Your task to perform on an android device: Go to network settings Image 0: 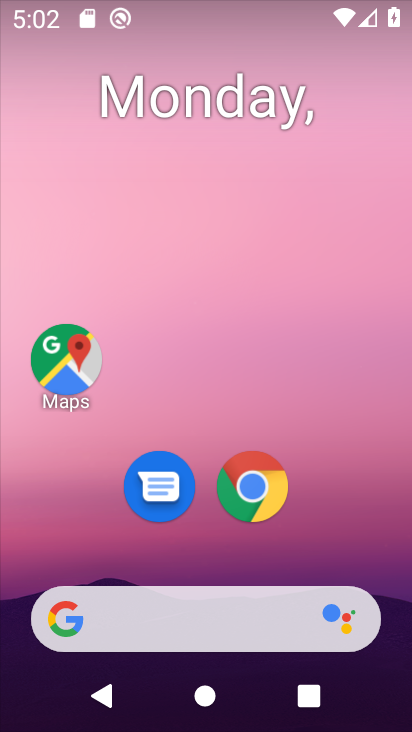
Step 0: drag from (346, 533) to (331, 46)
Your task to perform on an android device: Go to network settings Image 1: 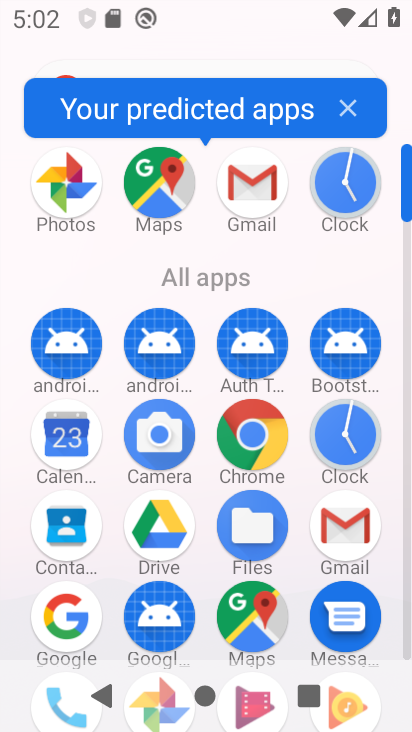
Step 1: click (410, 651)
Your task to perform on an android device: Go to network settings Image 2: 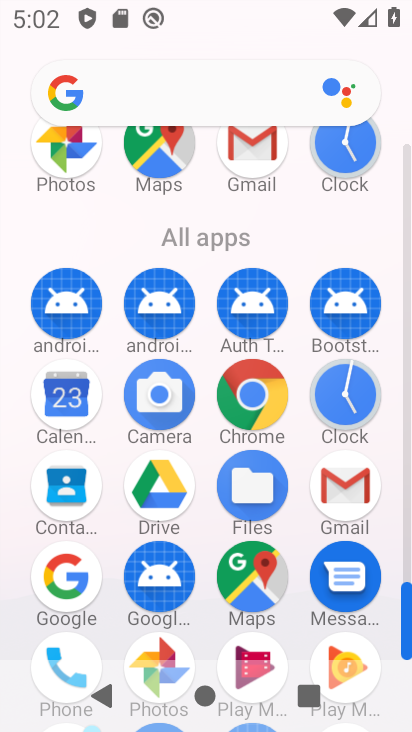
Step 2: drag from (395, 548) to (384, 326)
Your task to perform on an android device: Go to network settings Image 3: 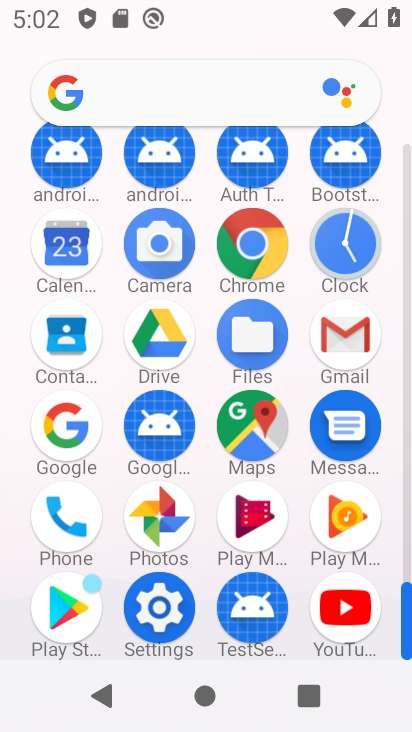
Step 3: click (171, 603)
Your task to perform on an android device: Go to network settings Image 4: 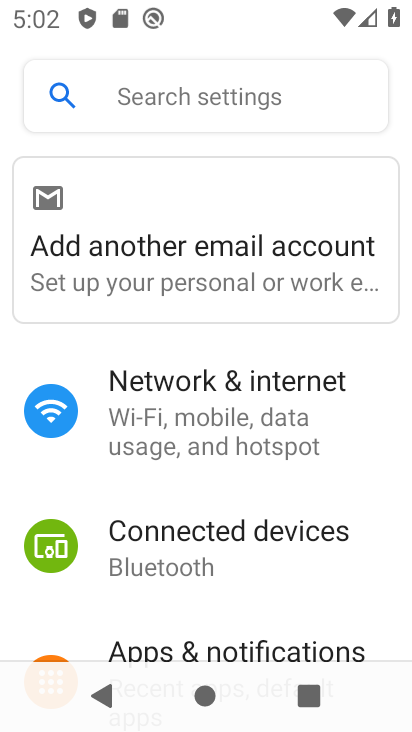
Step 4: drag from (203, 241) to (268, 406)
Your task to perform on an android device: Go to network settings Image 5: 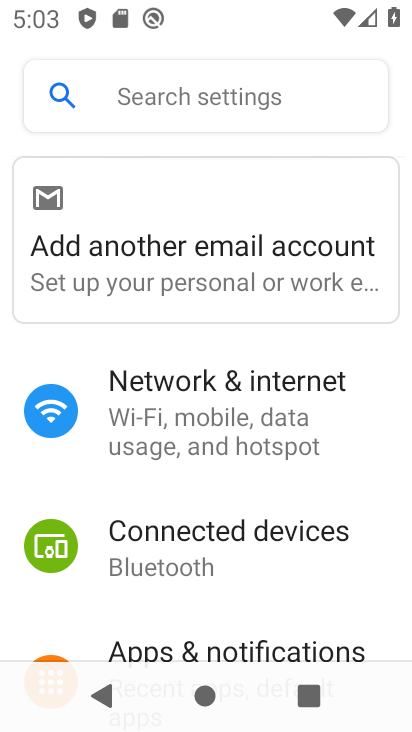
Step 5: click (267, 403)
Your task to perform on an android device: Go to network settings Image 6: 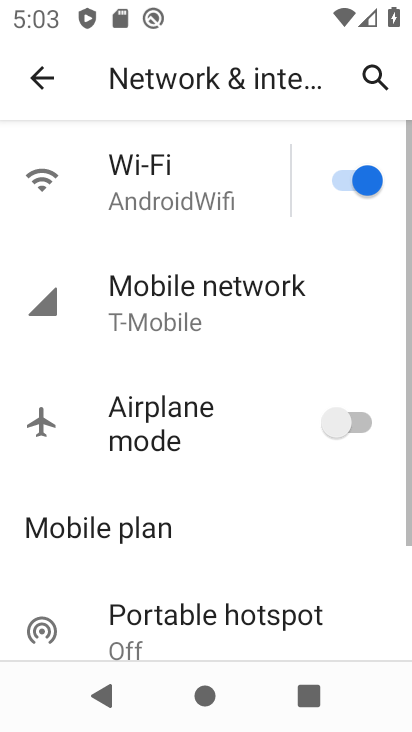
Step 6: task complete